Your task to perform on an android device: turn pop-ups on in chrome Image 0: 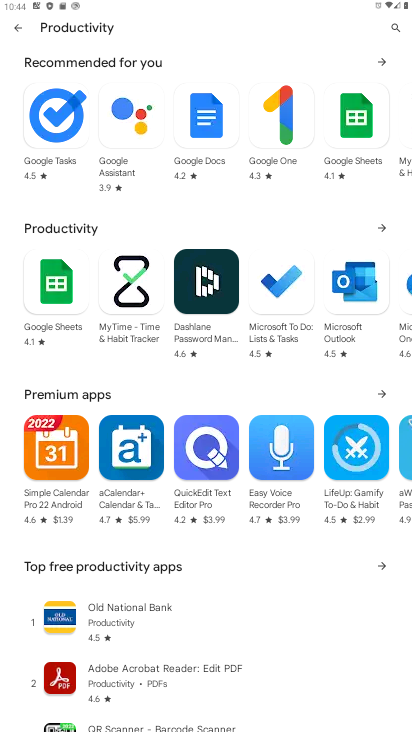
Step 0: press home button
Your task to perform on an android device: turn pop-ups on in chrome Image 1: 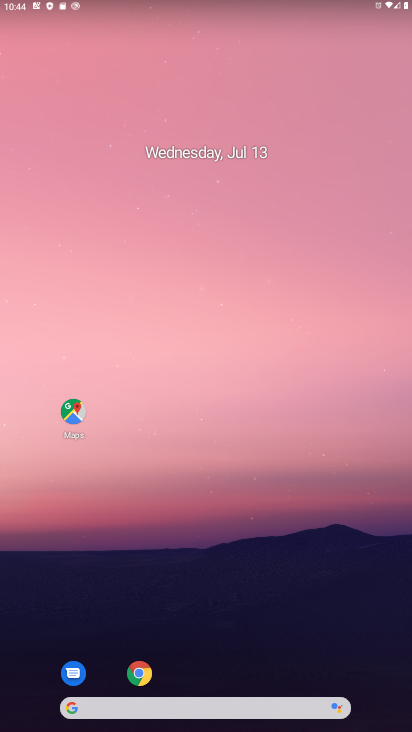
Step 1: click (143, 668)
Your task to perform on an android device: turn pop-ups on in chrome Image 2: 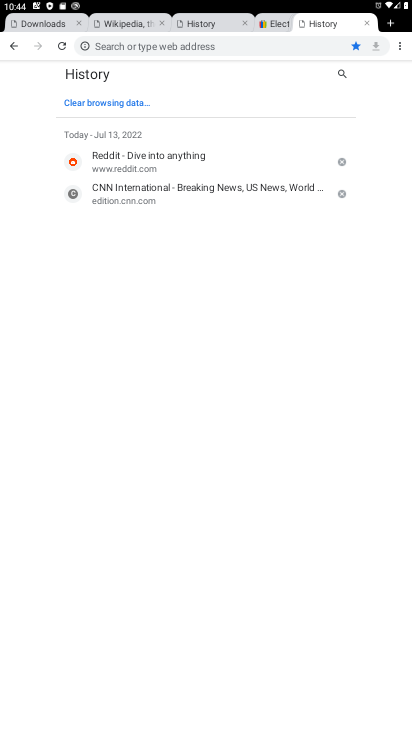
Step 2: click (392, 49)
Your task to perform on an android device: turn pop-ups on in chrome Image 3: 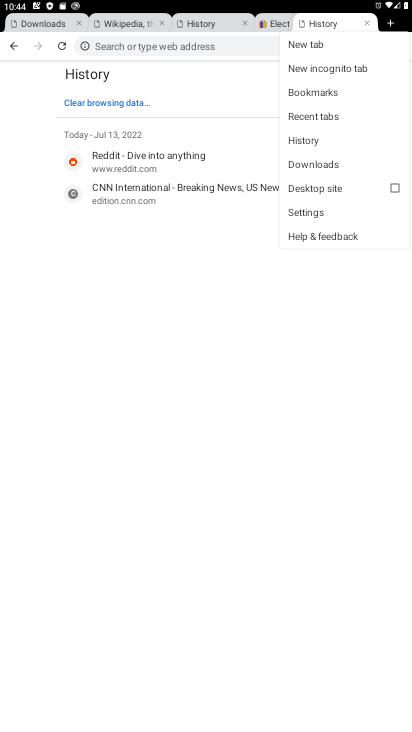
Step 3: click (313, 217)
Your task to perform on an android device: turn pop-ups on in chrome Image 4: 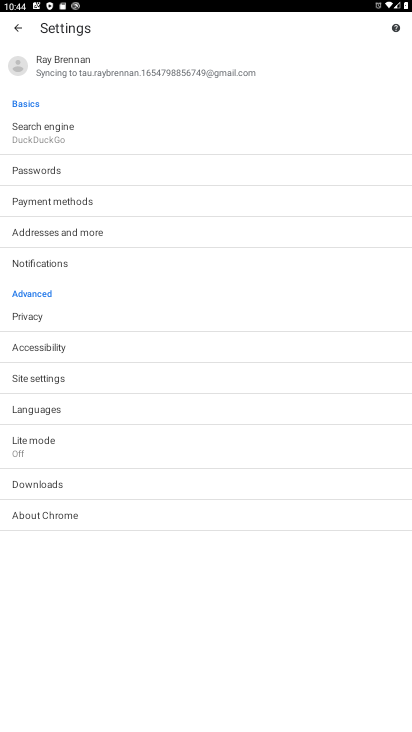
Step 4: click (120, 377)
Your task to perform on an android device: turn pop-ups on in chrome Image 5: 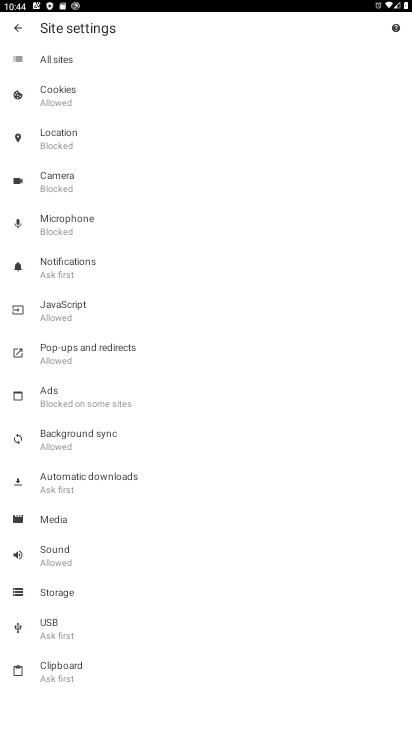
Step 5: click (123, 359)
Your task to perform on an android device: turn pop-ups on in chrome Image 6: 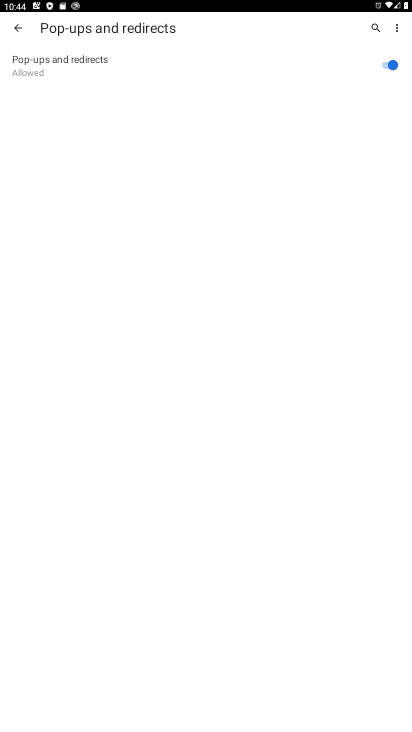
Step 6: task complete